Your task to perform on an android device: What is the recent news? Image 0: 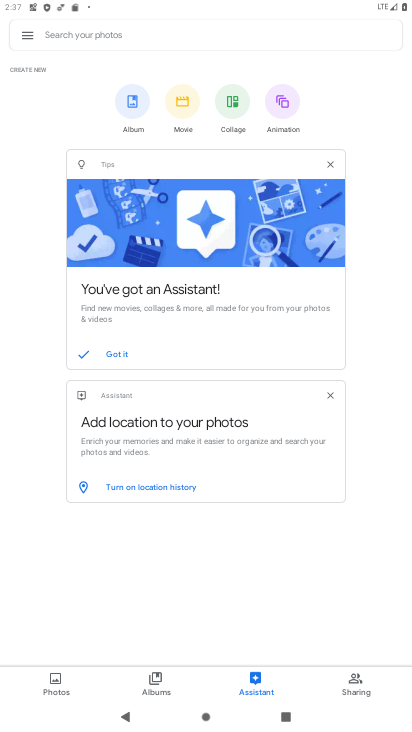
Step 0: press home button
Your task to perform on an android device: What is the recent news? Image 1: 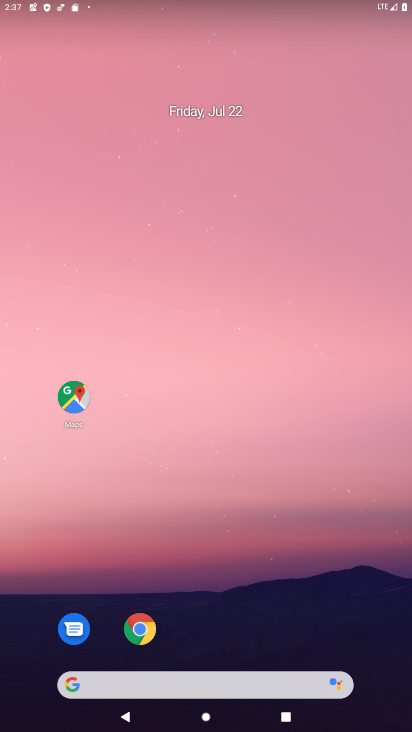
Step 1: task complete